Your task to perform on an android device: toggle priority inbox in the gmail app Image 0: 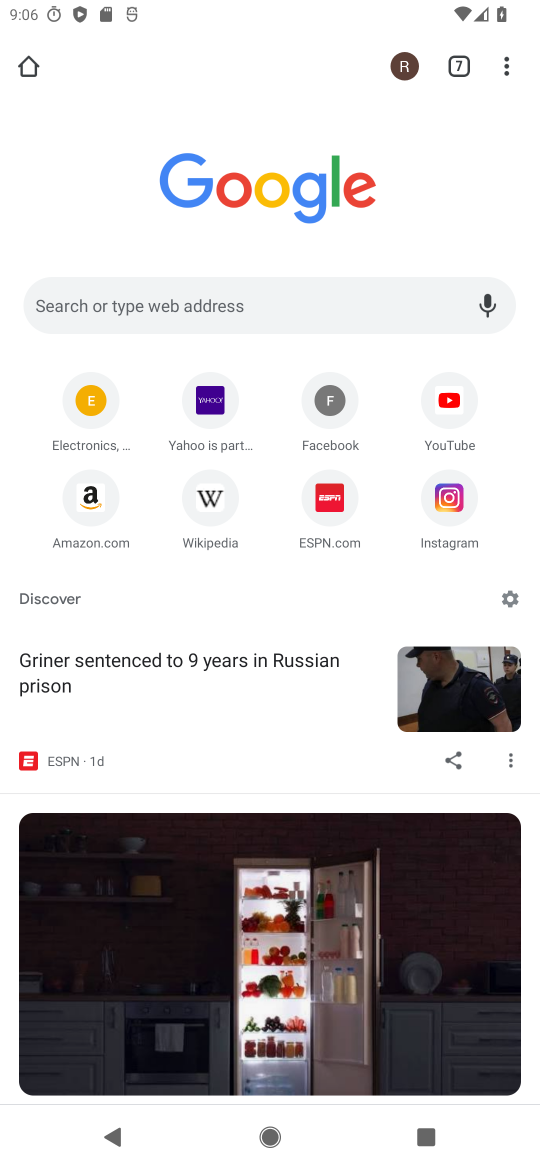
Step 0: press home button
Your task to perform on an android device: toggle priority inbox in the gmail app Image 1: 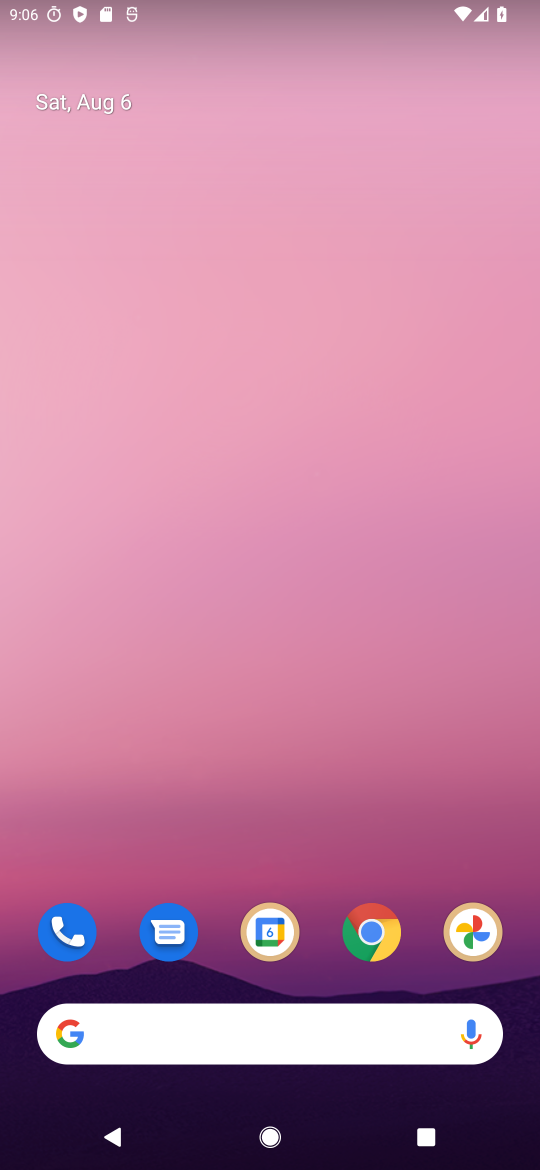
Step 1: drag from (334, 1039) to (405, 265)
Your task to perform on an android device: toggle priority inbox in the gmail app Image 2: 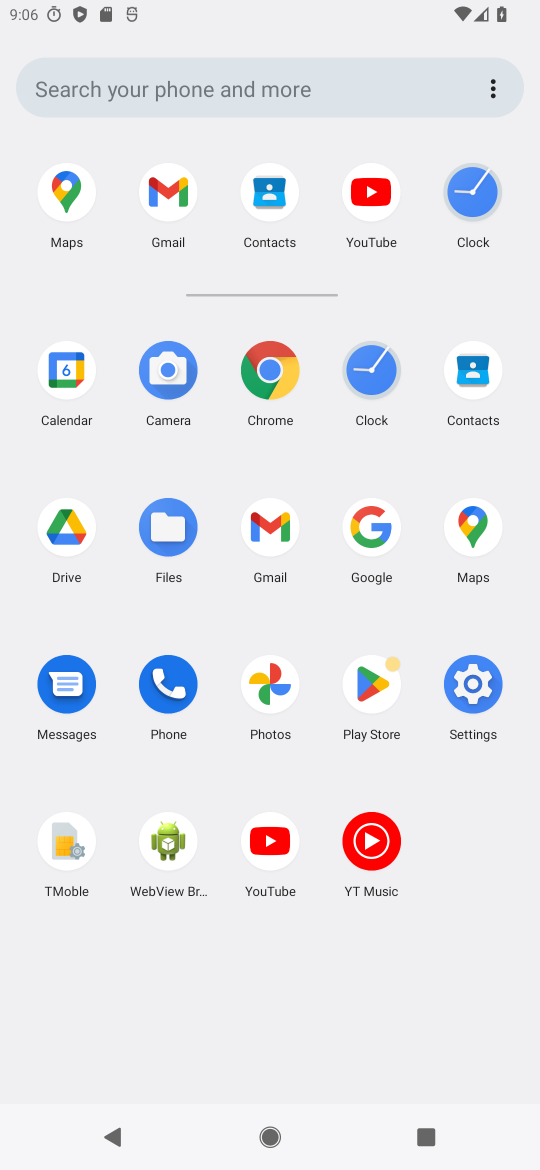
Step 2: click (267, 521)
Your task to perform on an android device: toggle priority inbox in the gmail app Image 3: 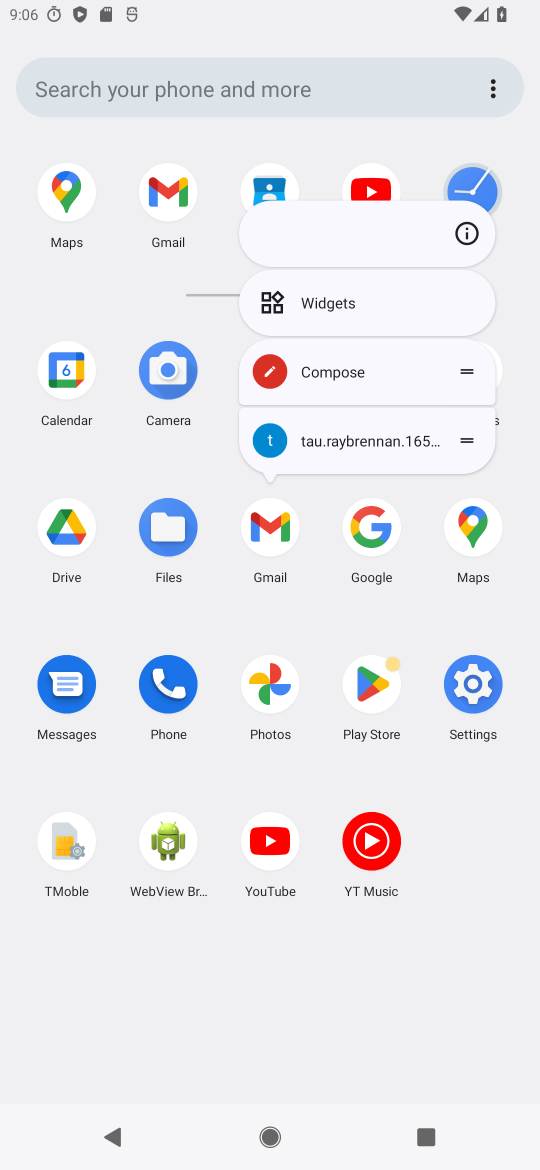
Step 3: click (267, 527)
Your task to perform on an android device: toggle priority inbox in the gmail app Image 4: 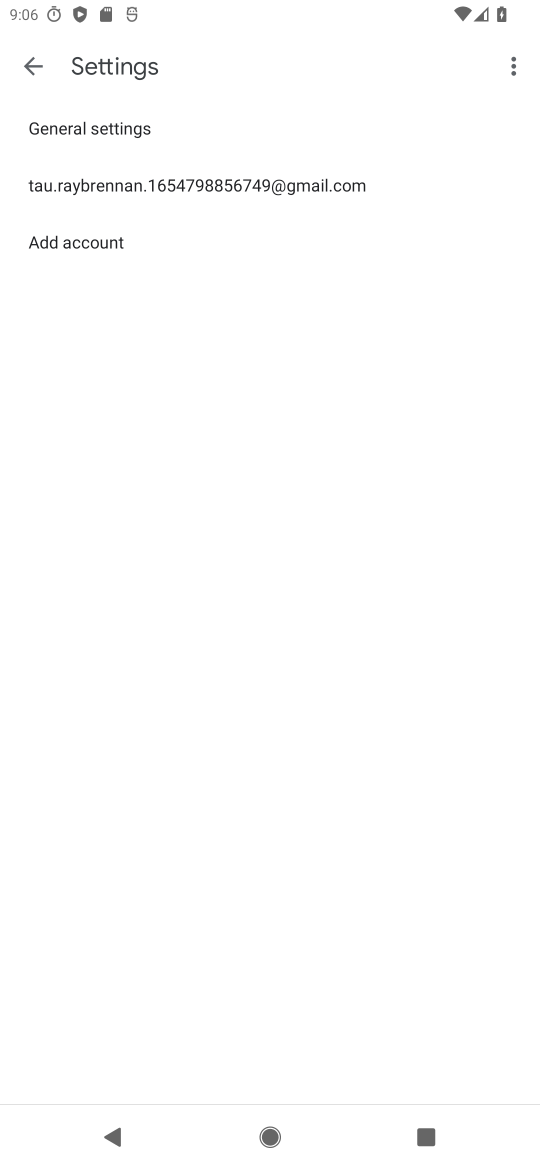
Step 4: click (235, 190)
Your task to perform on an android device: toggle priority inbox in the gmail app Image 5: 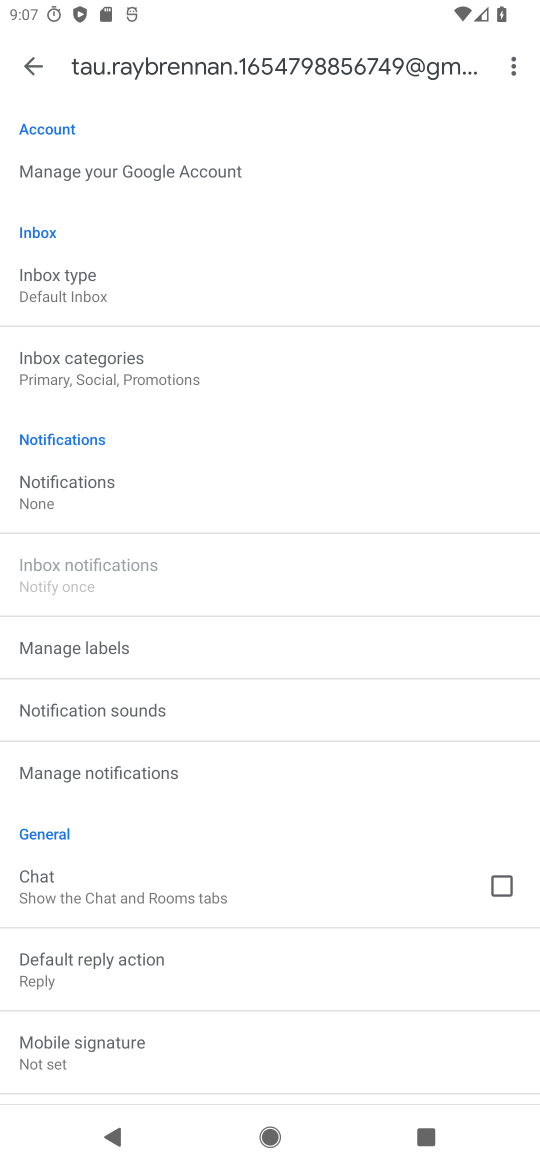
Step 5: click (96, 288)
Your task to perform on an android device: toggle priority inbox in the gmail app Image 6: 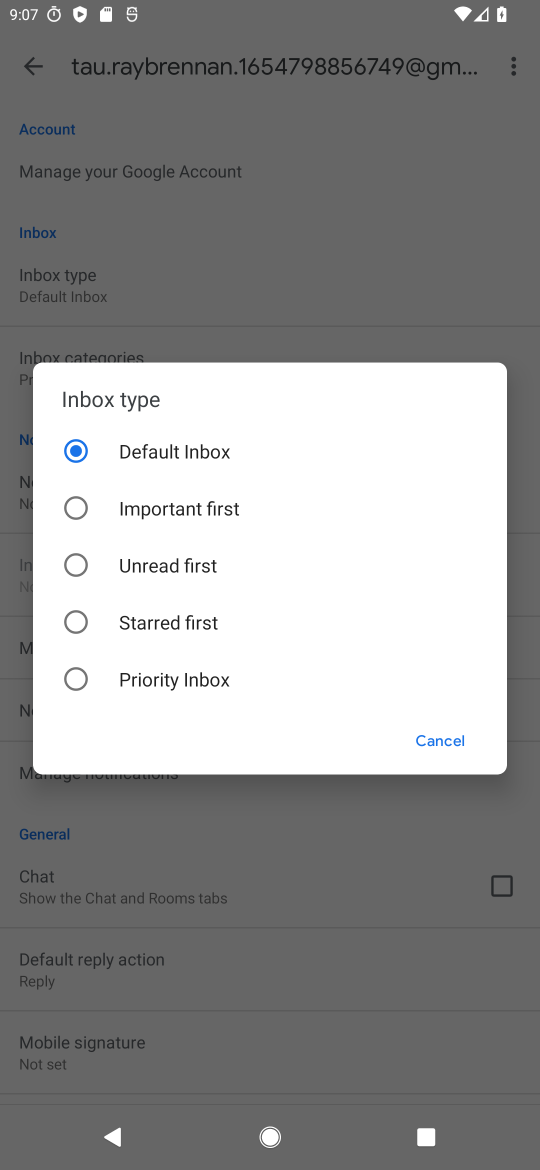
Step 6: click (97, 674)
Your task to perform on an android device: toggle priority inbox in the gmail app Image 7: 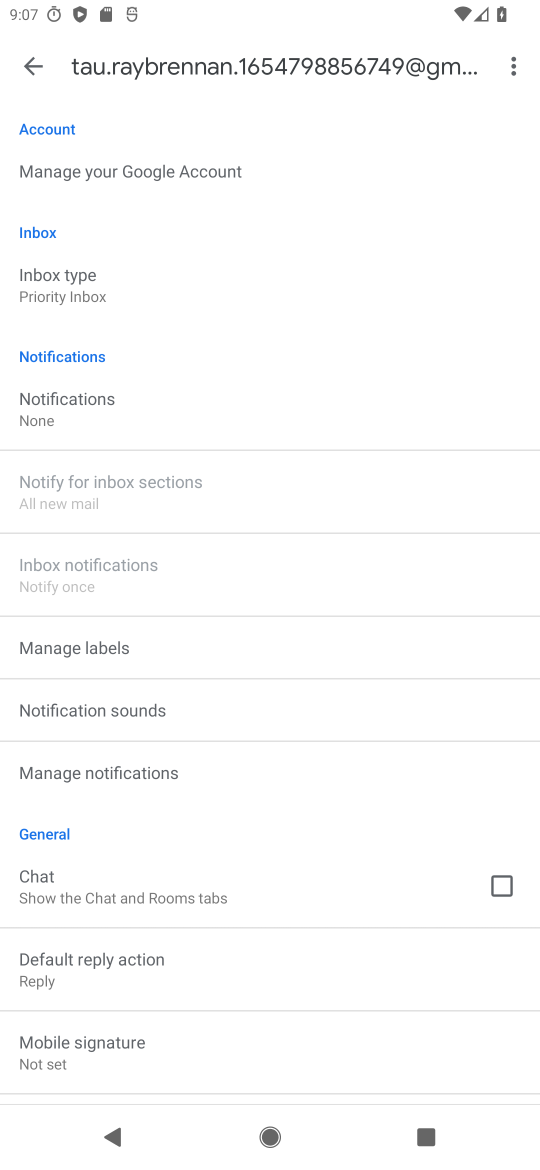
Step 7: task complete